Your task to perform on an android device: Open Youtube and go to "Your channel" Image 0: 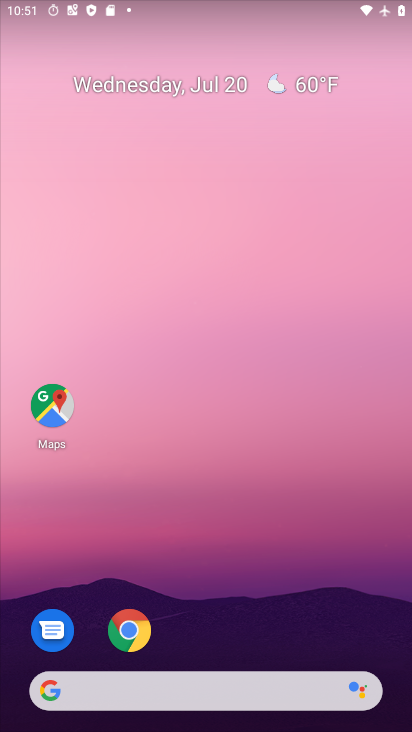
Step 0: drag from (193, 650) to (204, 126)
Your task to perform on an android device: Open Youtube and go to "Your channel" Image 1: 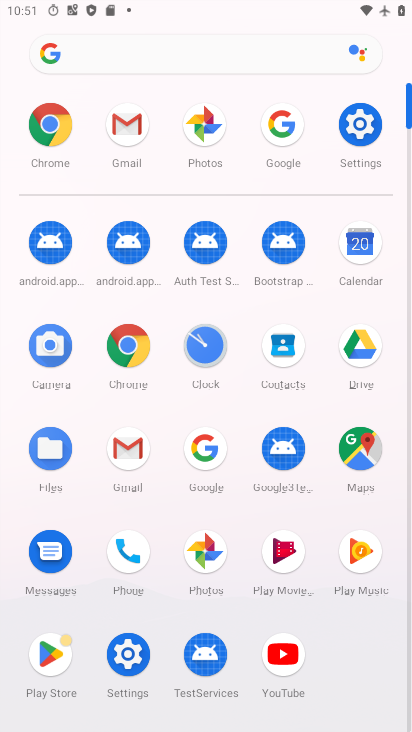
Step 1: click (286, 651)
Your task to perform on an android device: Open Youtube and go to "Your channel" Image 2: 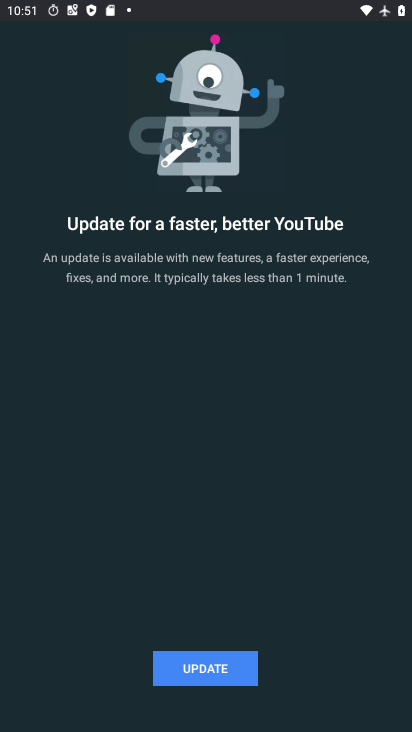
Step 2: click (214, 667)
Your task to perform on an android device: Open Youtube and go to "Your channel" Image 3: 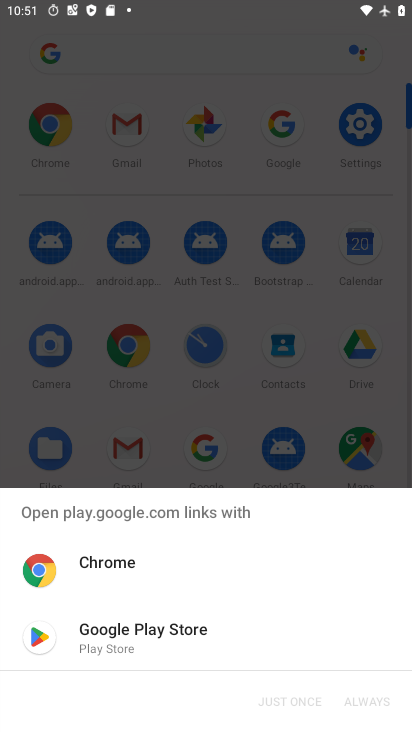
Step 3: click (175, 630)
Your task to perform on an android device: Open Youtube and go to "Your channel" Image 4: 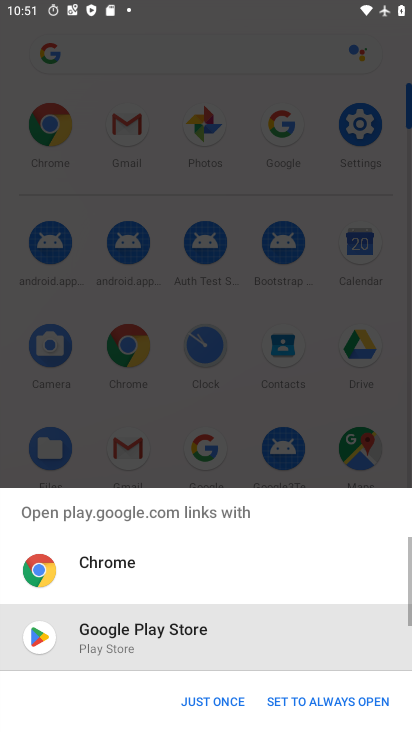
Step 4: click (209, 706)
Your task to perform on an android device: Open Youtube and go to "Your channel" Image 5: 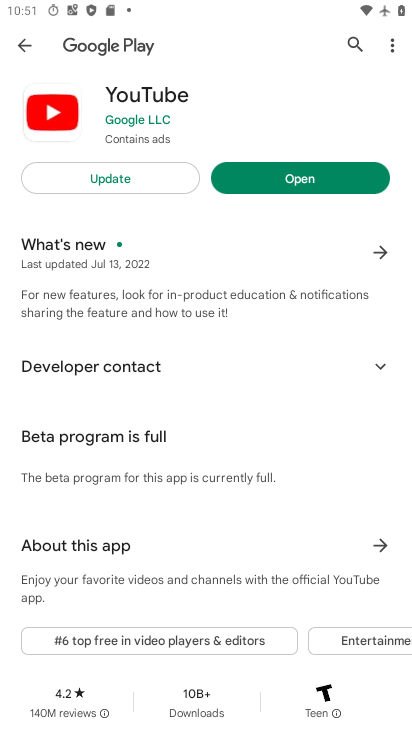
Step 5: click (138, 183)
Your task to perform on an android device: Open Youtube and go to "Your channel" Image 6: 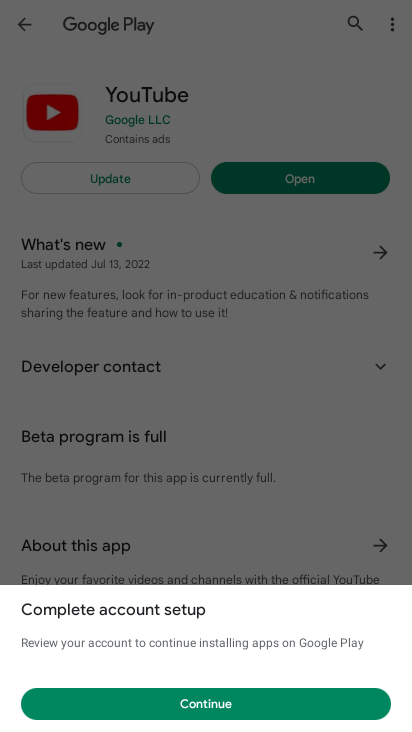
Step 6: click (200, 698)
Your task to perform on an android device: Open Youtube and go to "Your channel" Image 7: 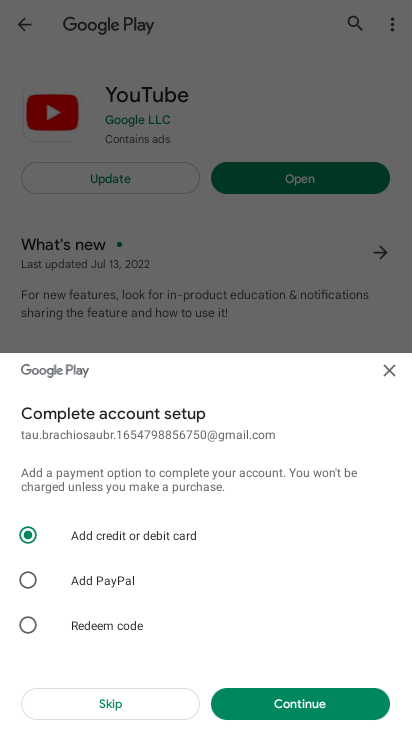
Step 7: click (99, 689)
Your task to perform on an android device: Open Youtube and go to "Your channel" Image 8: 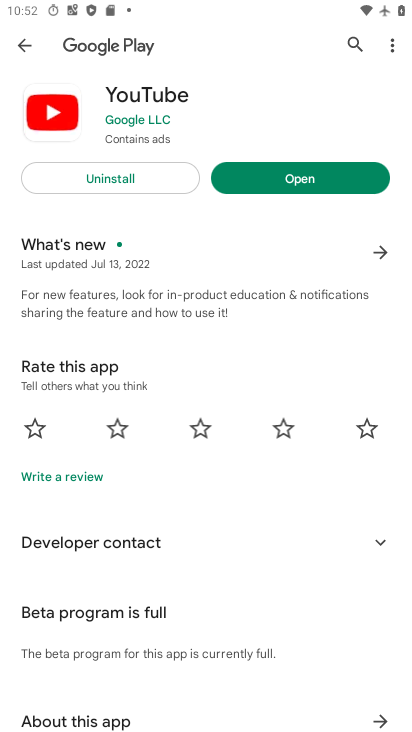
Step 8: click (285, 176)
Your task to perform on an android device: Open Youtube and go to "Your channel" Image 9: 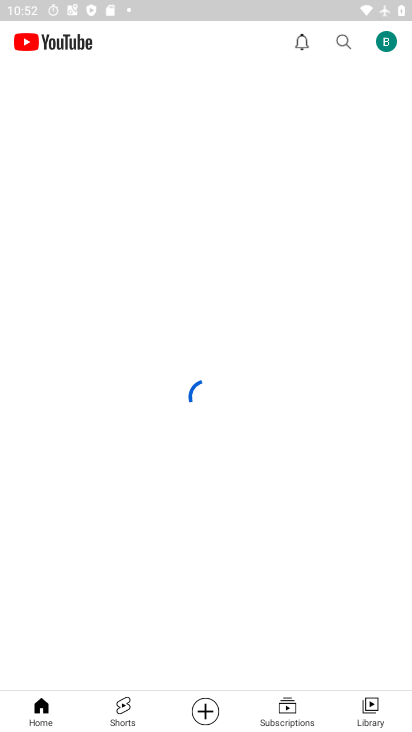
Step 9: click (383, 43)
Your task to perform on an android device: Open Youtube and go to "Your channel" Image 10: 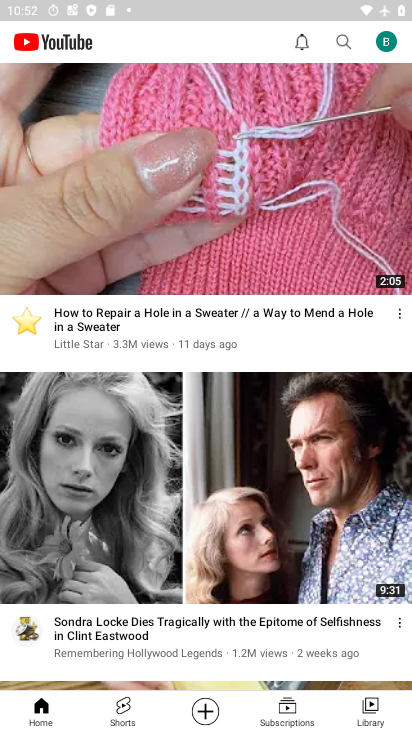
Step 10: click (387, 41)
Your task to perform on an android device: Open Youtube and go to "Your channel" Image 11: 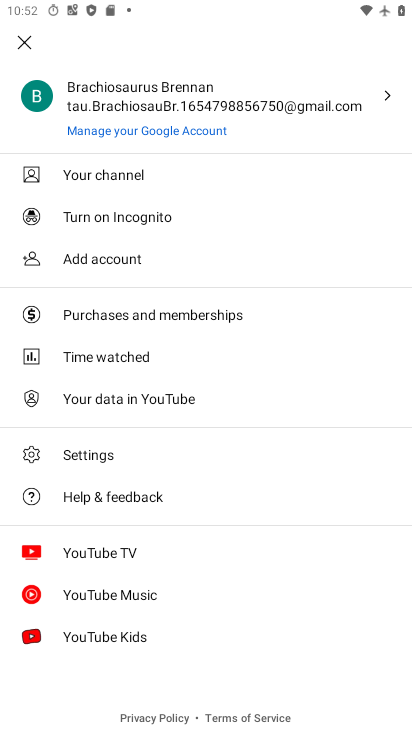
Step 11: click (102, 171)
Your task to perform on an android device: Open Youtube and go to "Your channel" Image 12: 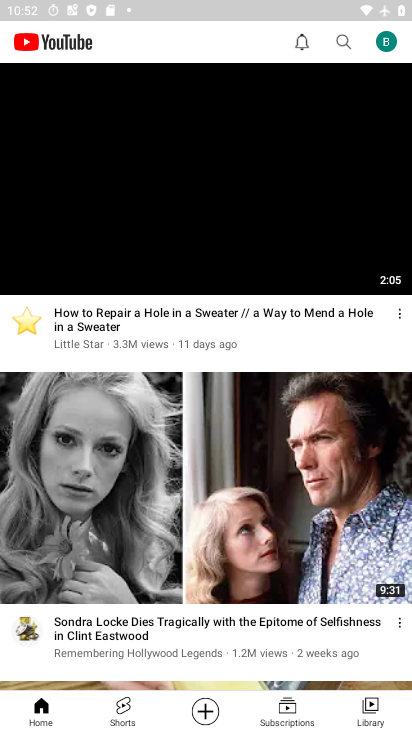
Step 12: click (386, 40)
Your task to perform on an android device: Open Youtube and go to "Your channel" Image 13: 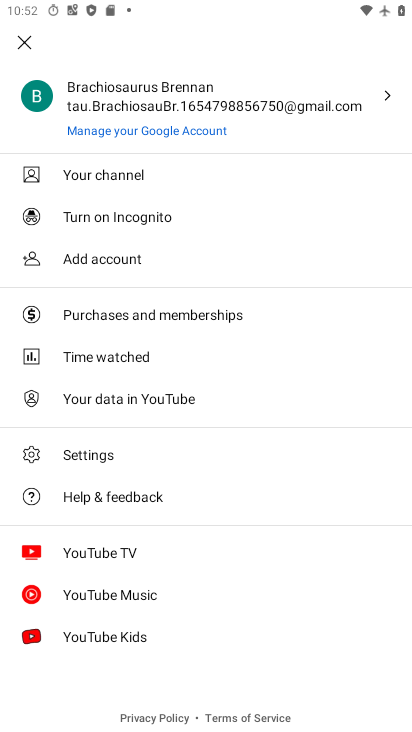
Step 13: click (80, 180)
Your task to perform on an android device: Open Youtube and go to "Your channel" Image 14: 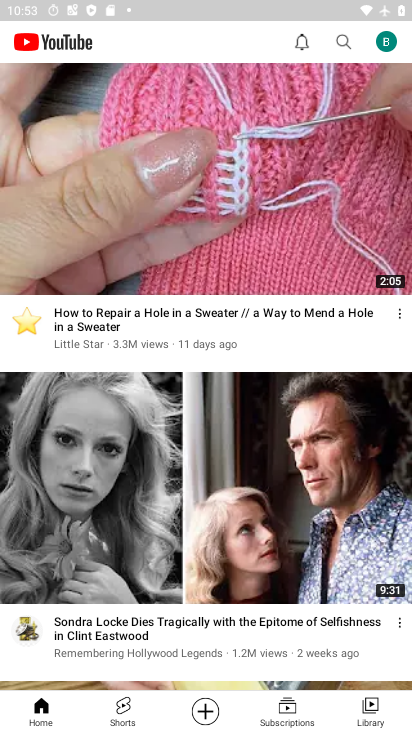
Step 14: task complete